Your task to perform on an android device: Go to Android settings Image 0: 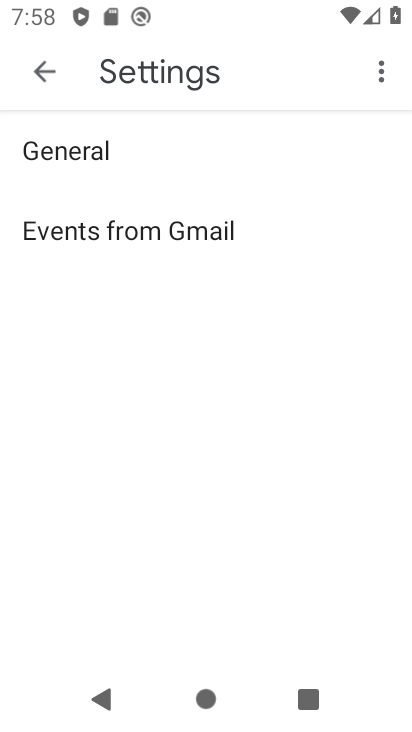
Step 0: press home button
Your task to perform on an android device: Go to Android settings Image 1: 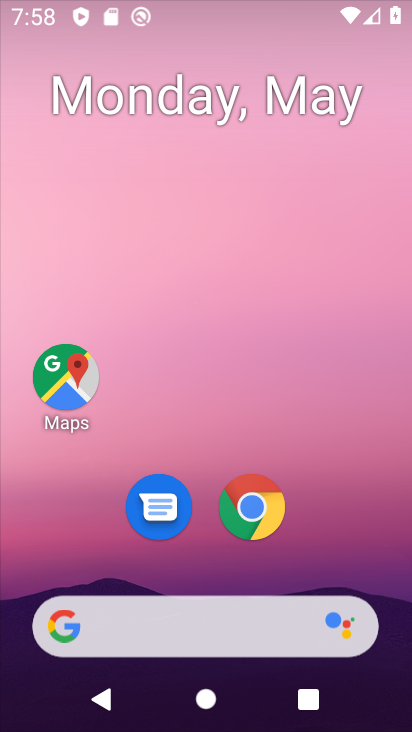
Step 1: drag from (185, 492) to (323, 0)
Your task to perform on an android device: Go to Android settings Image 2: 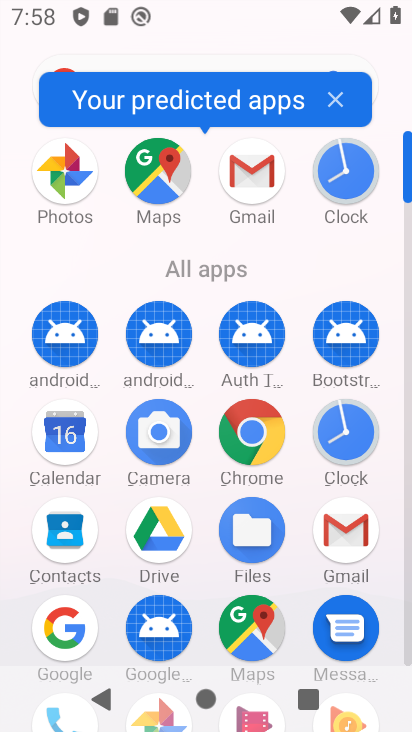
Step 2: drag from (210, 582) to (268, 164)
Your task to perform on an android device: Go to Android settings Image 3: 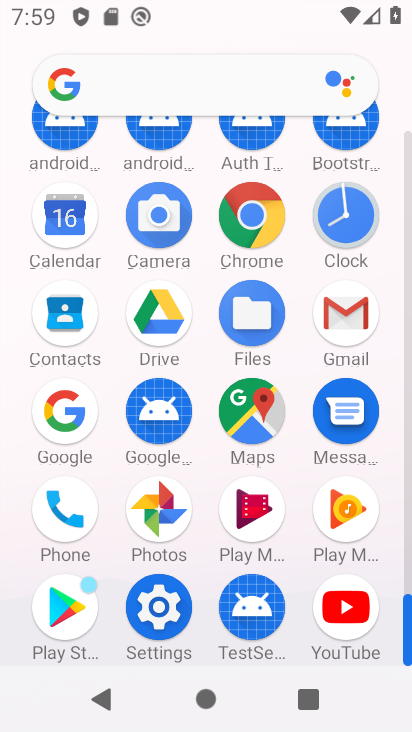
Step 3: click (171, 612)
Your task to perform on an android device: Go to Android settings Image 4: 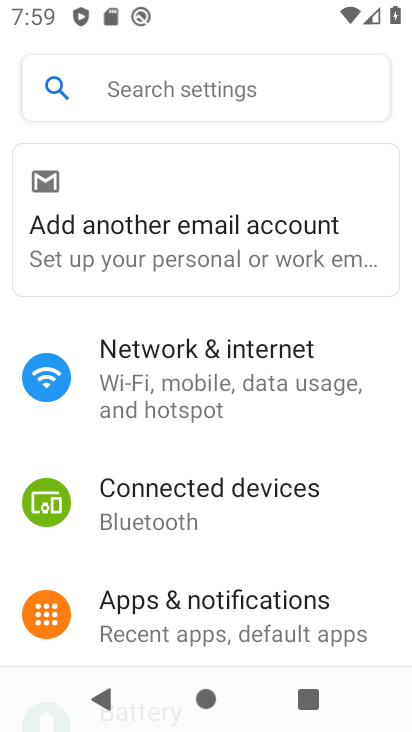
Step 4: drag from (193, 483) to (230, 172)
Your task to perform on an android device: Go to Android settings Image 5: 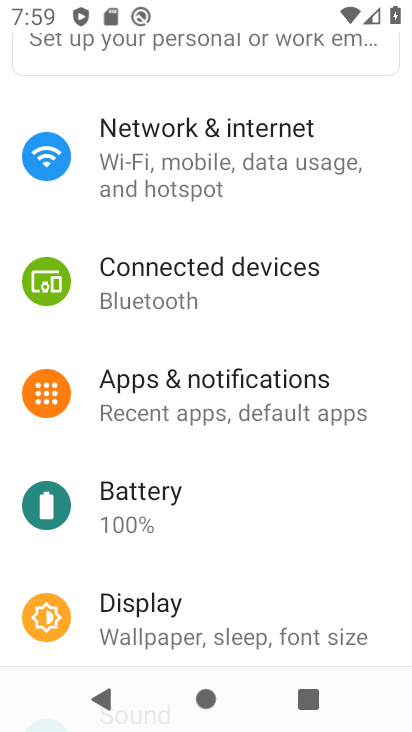
Step 5: drag from (198, 558) to (258, 24)
Your task to perform on an android device: Go to Android settings Image 6: 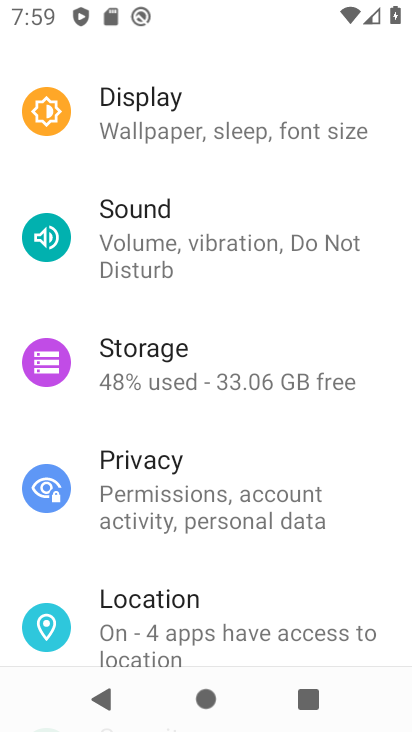
Step 6: drag from (219, 505) to (246, 118)
Your task to perform on an android device: Go to Android settings Image 7: 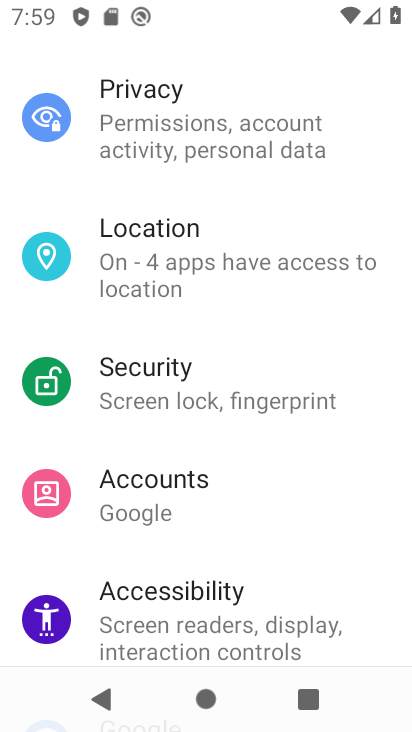
Step 7: drag from (174, 537) to (234, 182)
Your task to perform on an android device: Go to Android settings Image 8: 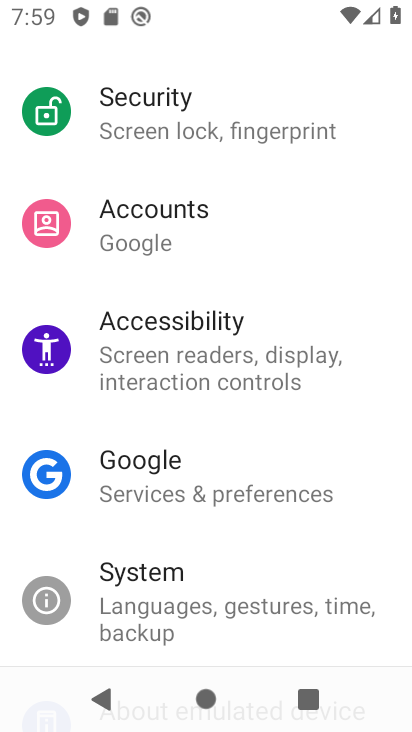
Step 8: drag from (146, 580) to (200, 232)
Your task to perform on an android device: Go to Android settings Image 9: 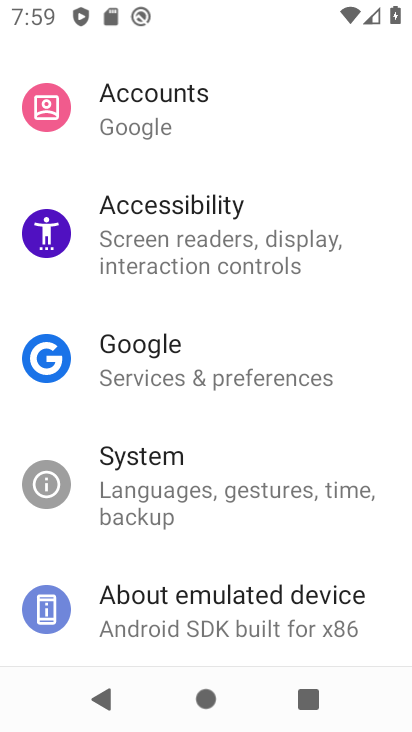
Step 9: click (176, 622)
Your task to perform on an android device: Go to Android settings Image 10: 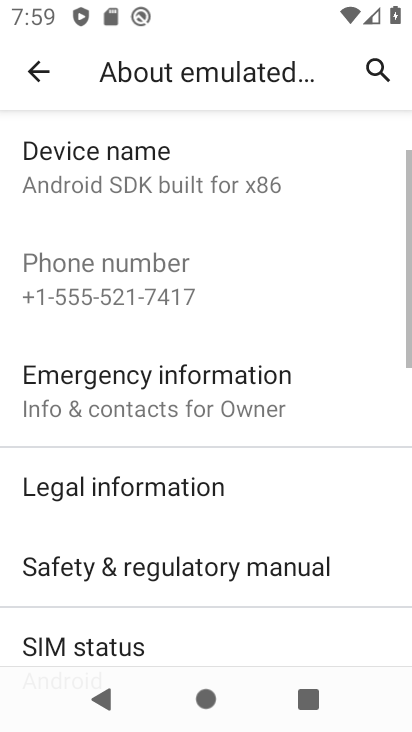
Step 10: drag from (165, 604) to (214, 279)
Your task to perform on an android device: Go to Android settings Image 11: 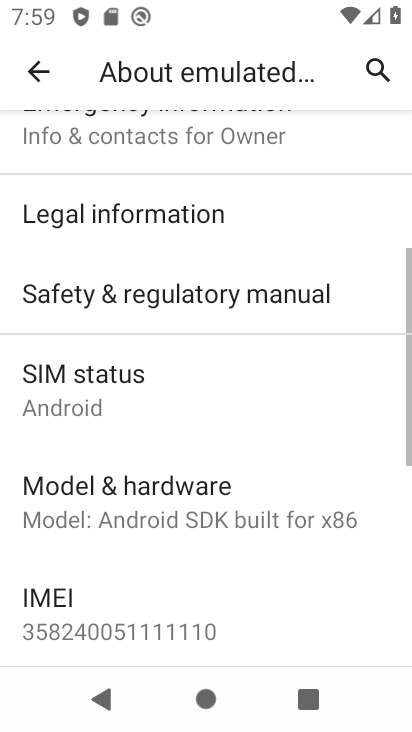
Step 11: drag from (195, 547) to (246, 278)
Your task to perform on an android device: Go to Android settings Image 12: 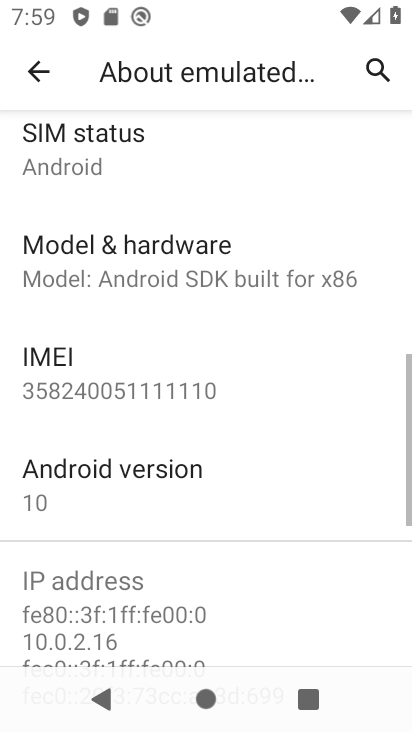
Step 12: click (182, 485)
Your task to perform on an android device: Go to Android settings Image 13: 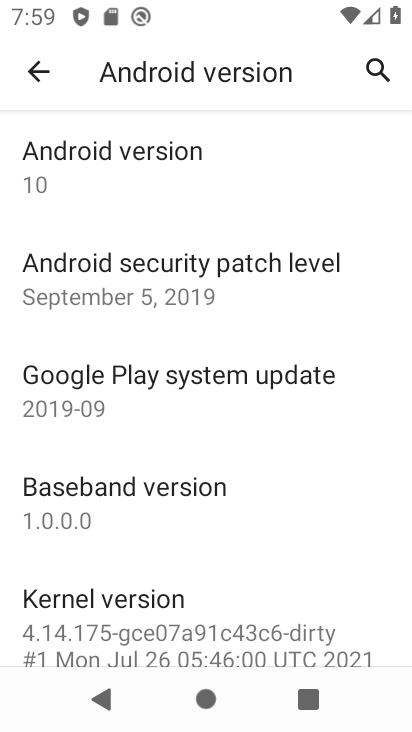
Step 13: task complete